Your task to perform on an android device: Open the Play Movies app and select the watchlist tab. Image 0: 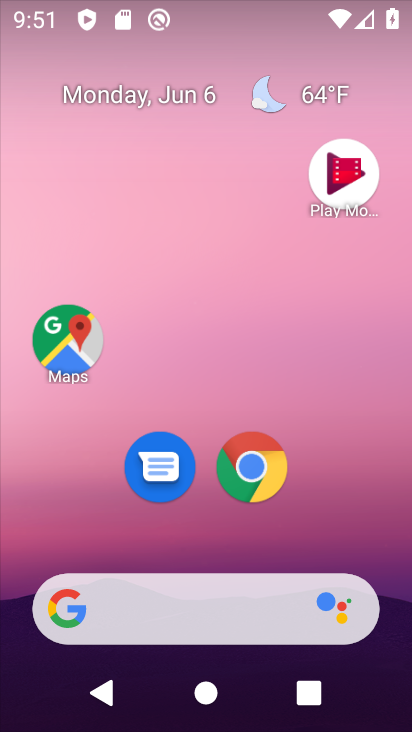
Step 0: drag from (82, 563) to (211, 56)
Your task to perform on an android device: Open the Play Movies app and select the watchlist tab. Image 1: 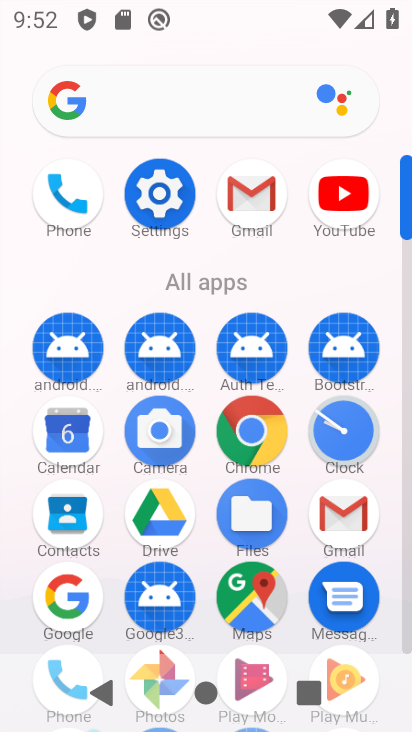
Step 1: drag from (193, 611) to (254, 321)
Your task to perform on an android device: Open the Play Movies app and select the watchlist tab. Image 2: 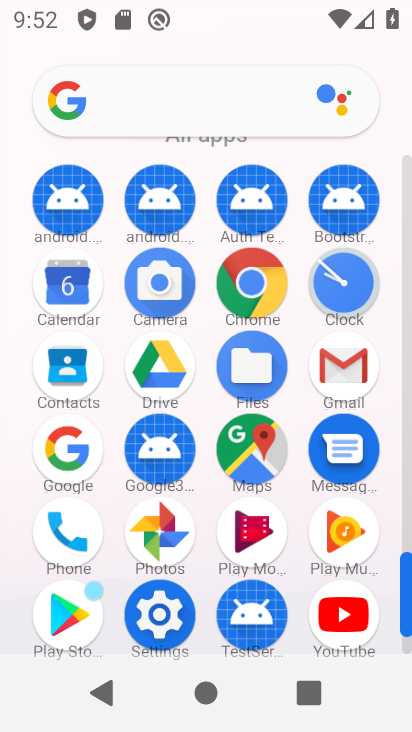
Step 2: click (248, 542)
Your task to perform on an android device: Open the Play Movies app and select the watchlist tab. Image 3: 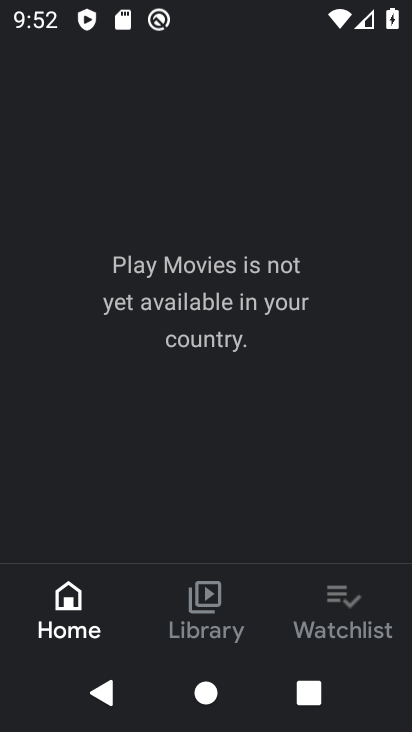
Step 3: click (324, 617)
Your task to perform on an android device: Open the Play Movies app and select the watchlist tab. Image 4: 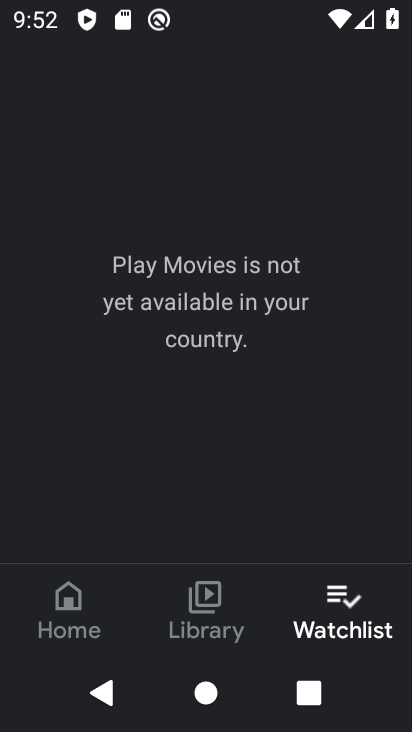
Step 4: task complete